Your task to perform on an android device: turn notification dots on Image 0: 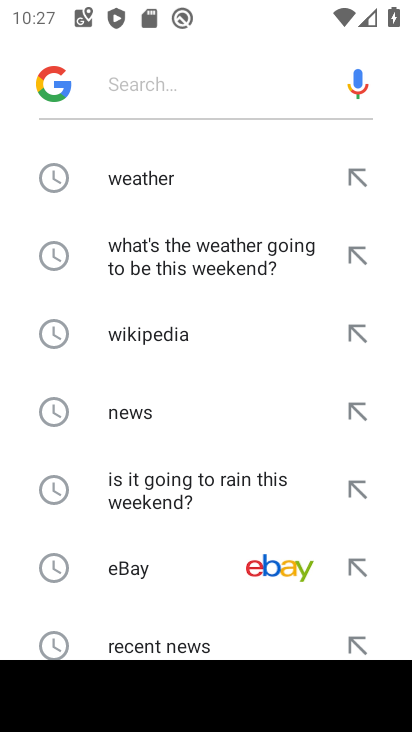
Step 0: press back button
Your task to perform on an android device: turn notification dots on Image 1: 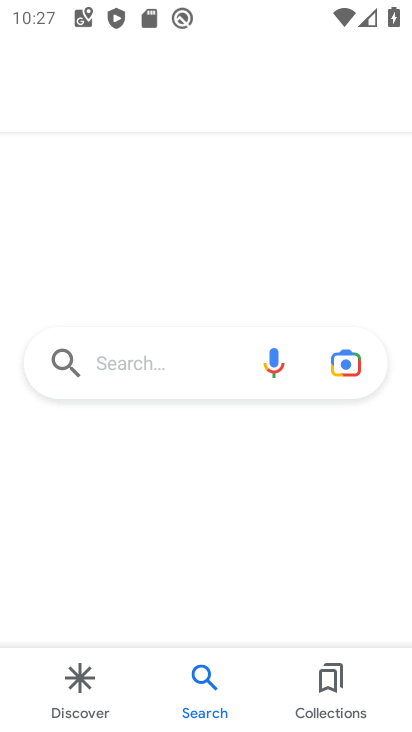
Step 1: press back button
Your task to perform on an android device: turn notification dots on Image 2: 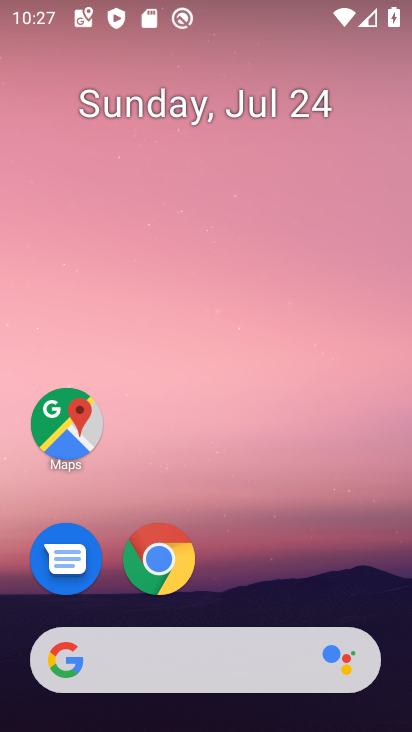
Step 2: drag from (289, 594) to (285, 14)
Your task to perform on an android device: turn notification dots on Image 3: 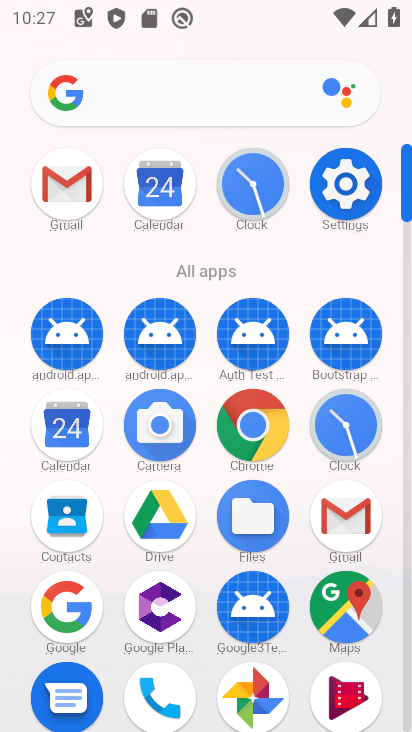
Step 3: click (366, 190)
Your task to perform on an android device: turn notification dots on Image 4: 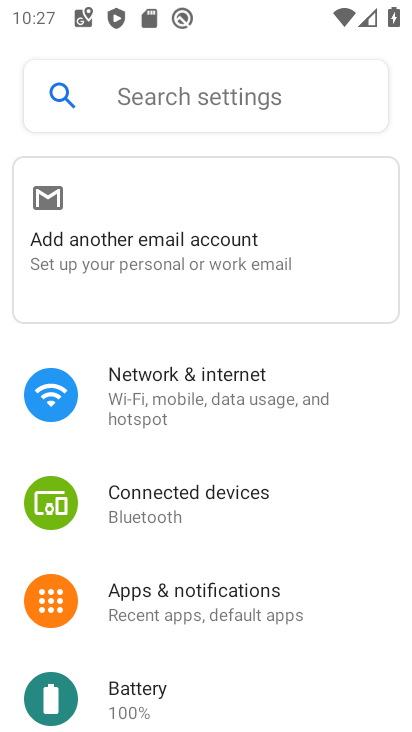
Step 4: click (170, 603)
Your task to perform on an android device: turn notification dots on Image 5: 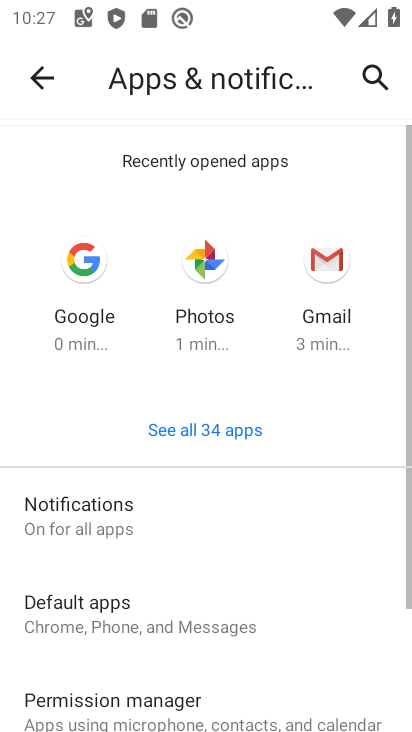
Step 5: click (147, 524)
Your task to perform on an android device: turn notification dots on Image 6: 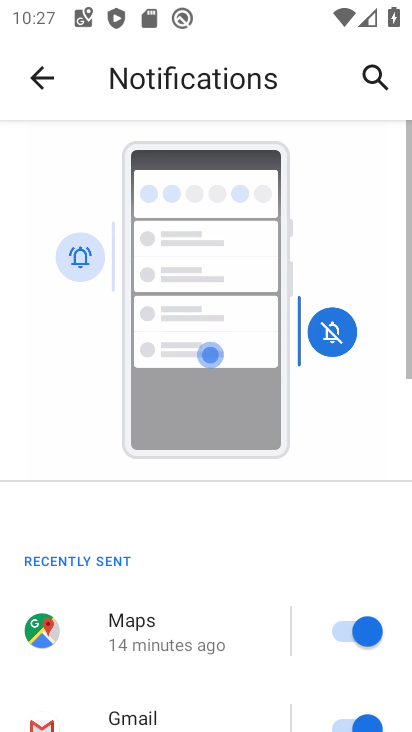
Step 6: drag from (154, 672) to (292, 38)
Your task to perform on an android device: turn notification dots on Image 7: 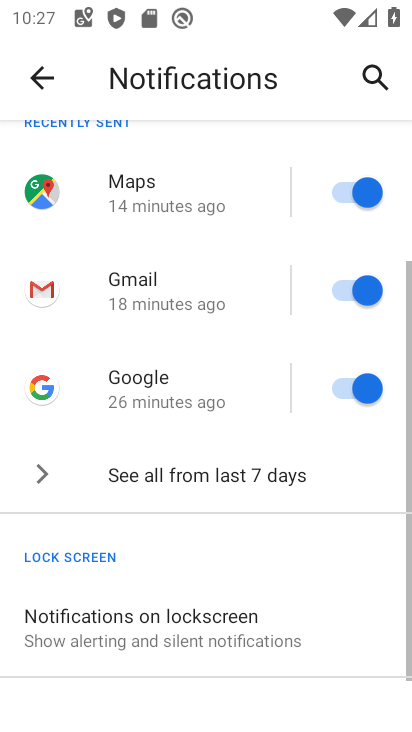
Step 7: drag from (188, 620) to (276, 50)
Your task to perform on an android device: turn notification dots on Image 8: 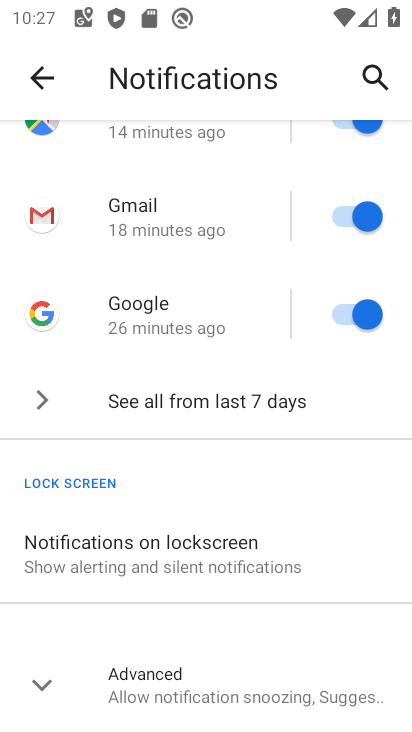
Step 8: click (162, 673)
Your task to perform on an android device: turn notification dots on Image 9: 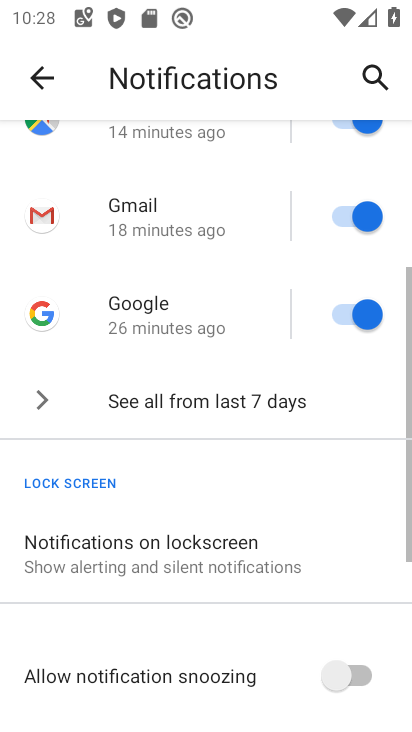
Step 9: task complete